Your task to perform on an android device: clear all cookies in the chrome app Image 0: 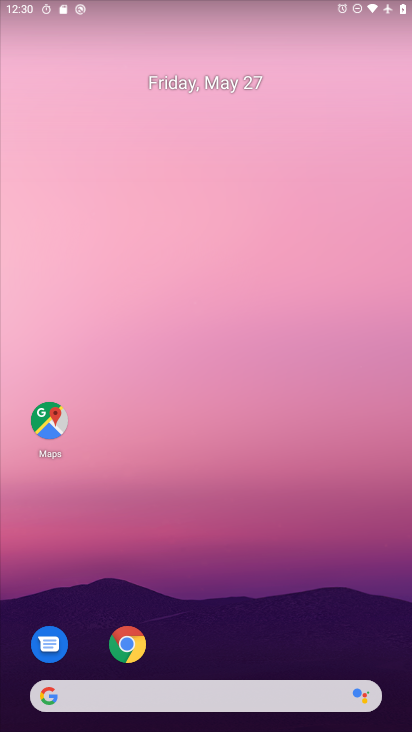
Step 0: click (138, 645)
Your task to perform on an android device: clear all cookies in the chrome app Image 1: 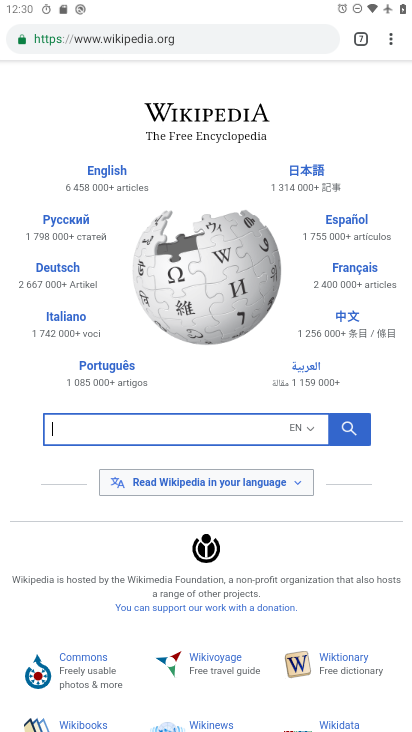
Step 1: drag from (391, 35) to (291, 213)
Your task to perform on an android device: clear all cookies in the chrome app Image 2: 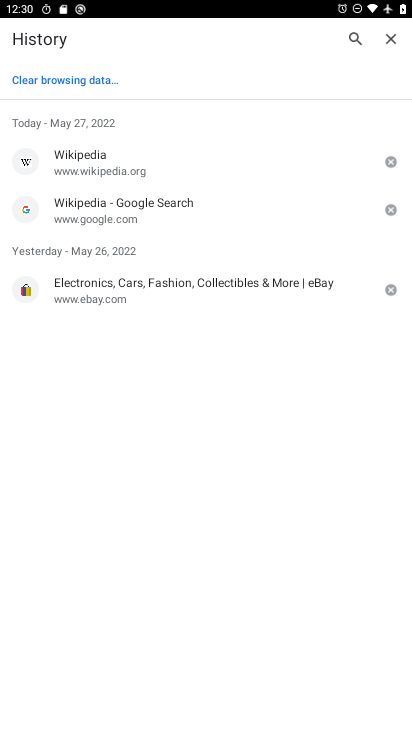
Step 2: click (63, 78)
Your task to perform on an android device: clear all cookies in the chrome app Image 3: 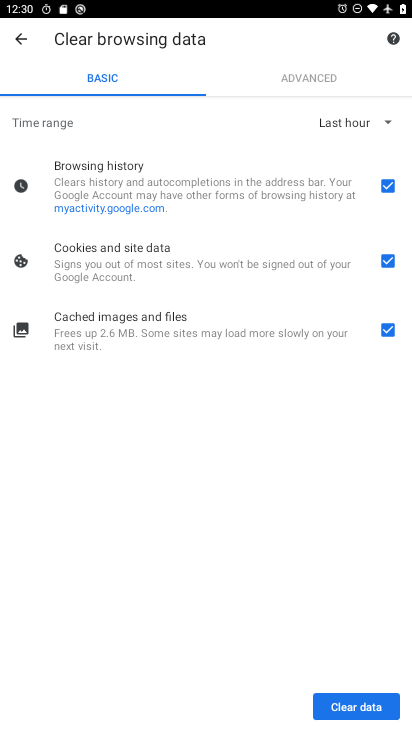
Step 3: click (335, 697)
Your task to perform on an android device: clear all cookies in the chrome app Image 4: 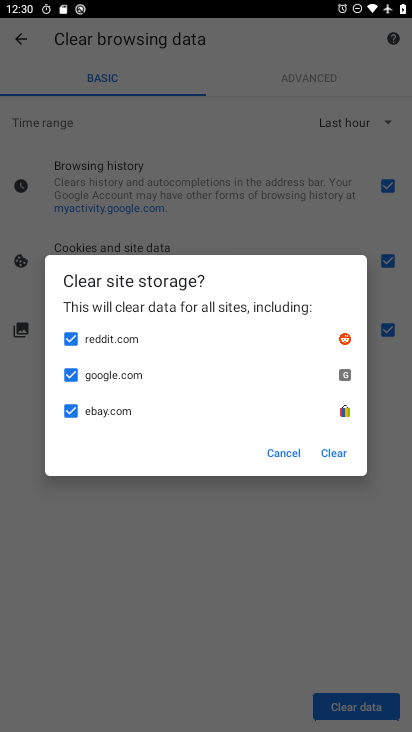
Step 4: click (325, 451)
Your task to perform on an android device: clear all cookies in the chrome app Image 5: 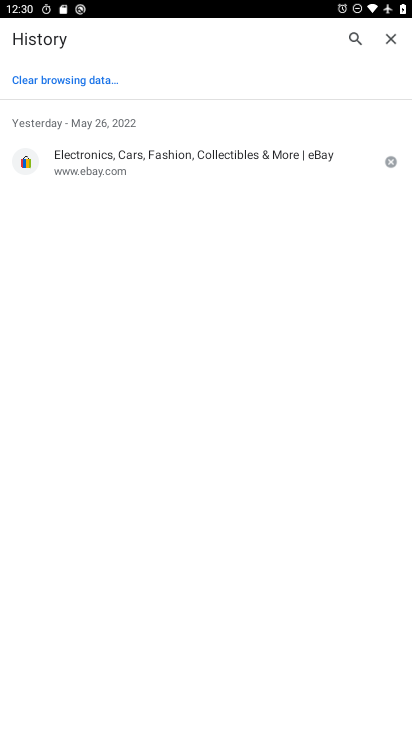
Step 5: task complete